Your task to perform on an android device: Open Google Image 0: 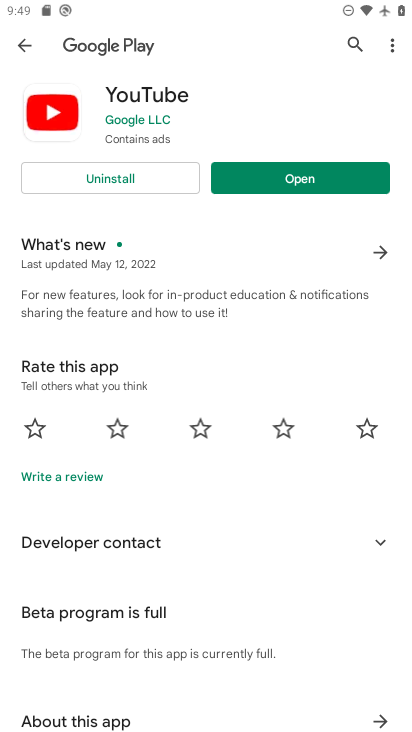
Step 0: press home button
Your task to perform on an android device: Open Google Image 1: 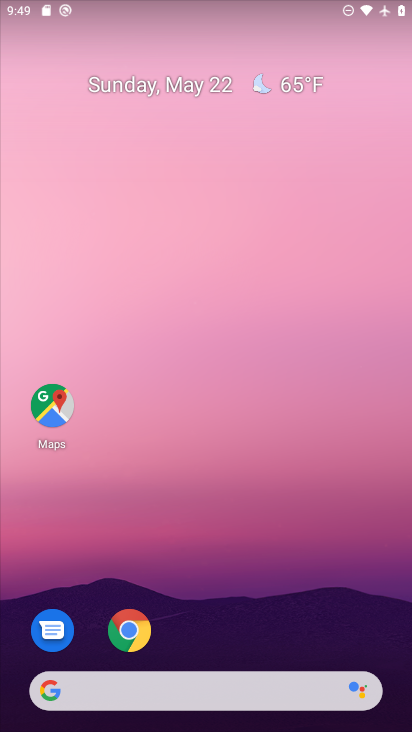
Step 1: drag from (155, 685) to (338, 177)
Your task to perform on an android device: Open Google Image 2: 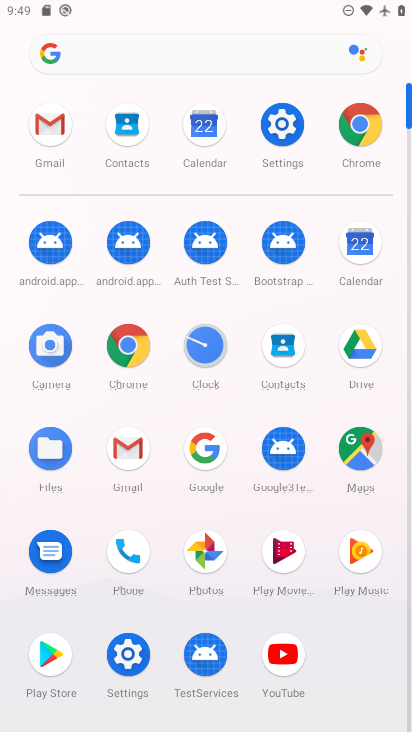
Step 2: click (219, 450)
Your task to perform on an android device: Open Google Image 3: 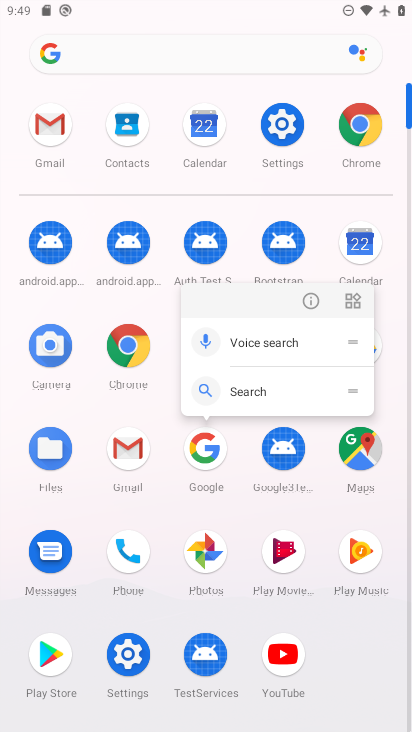
Step 3: click (216, 453)
Your task to perform on an android device: Open Google Image 4: 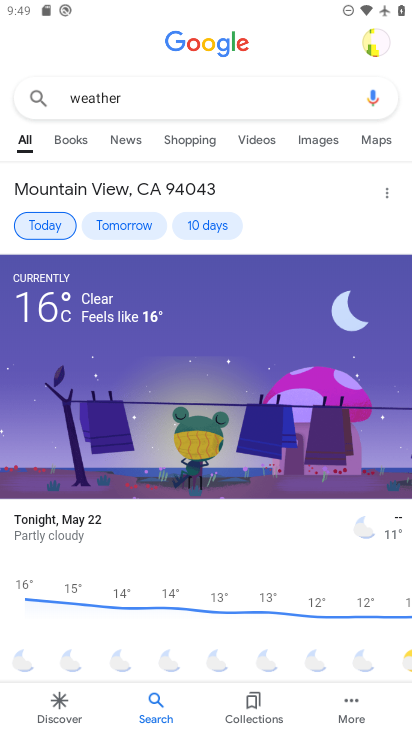
Step 4: task complete